Your task to perform on an android device: Show me recent news Image 0: 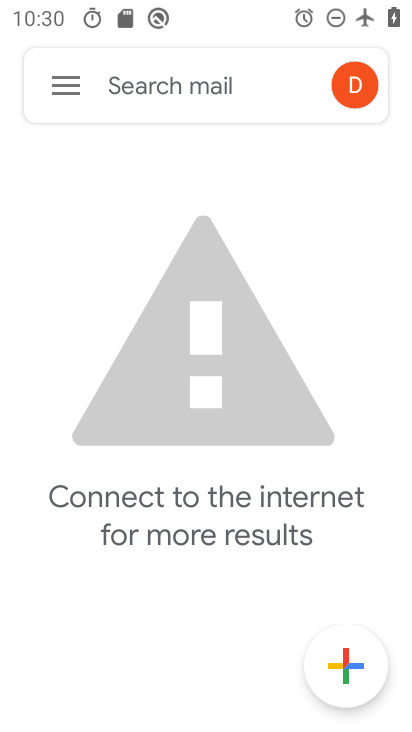
Step 0: press home button
Your task to perform on an android device: Show me recent news Image 1: 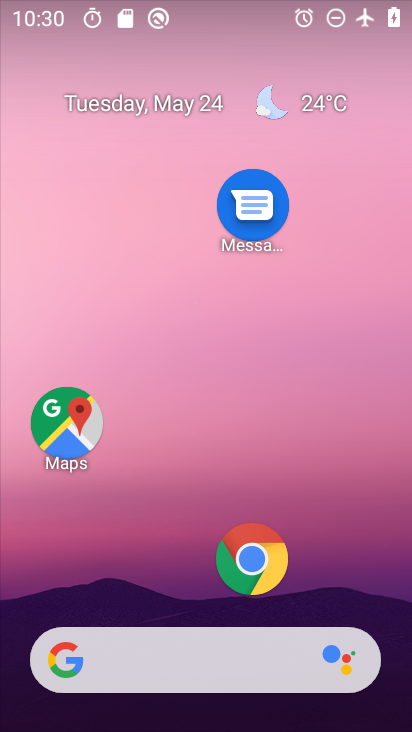
Step 1: drag from (189, 596) to (151, 155)
Your task to perform on an android device: Show me recent news Image 2: 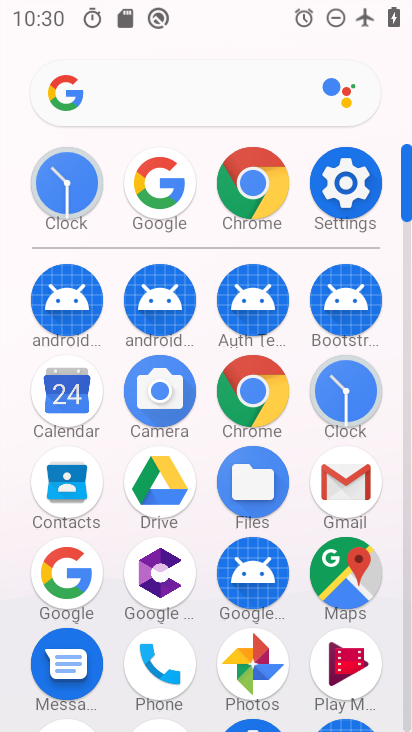
Step 2: click (70, 571)
Your task to perform on an android device: Show me recent news Image 3: 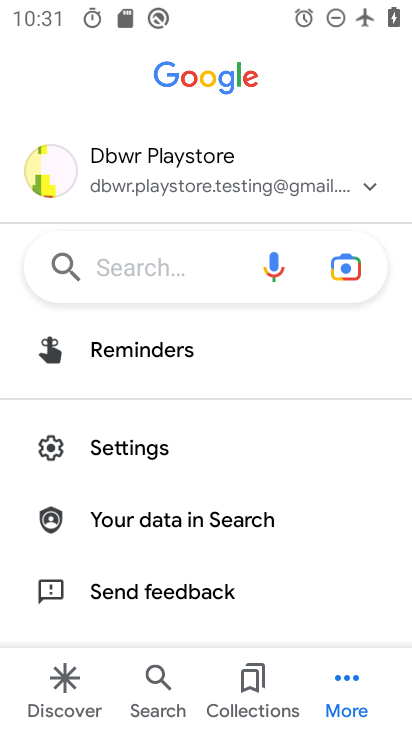
Step 3: click (77, 686)
Your task to perform on an android device: Show me recent news Image 4: 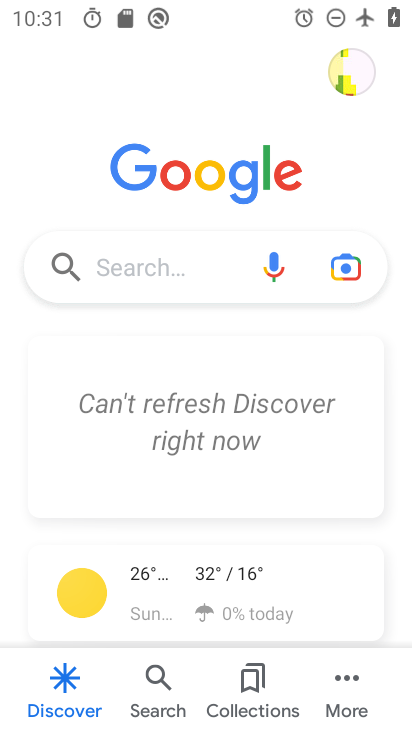
Step 4: click (152, 259)
Your task to perform on an android device: Show me recent news Image 5: 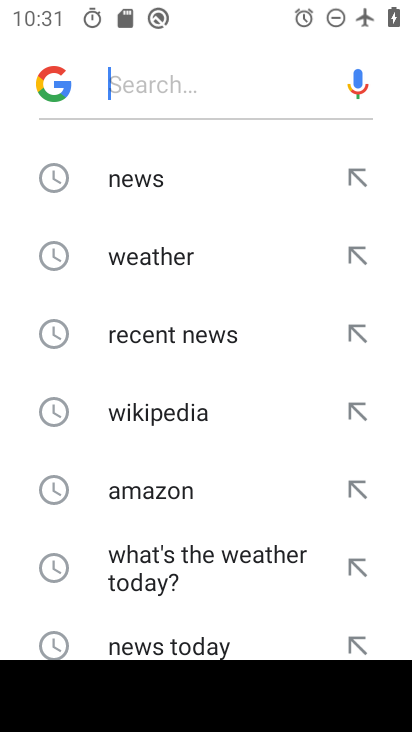
Step 5: click (125, 189)
Your task to perform on an android device: Show me recent news Image 6: 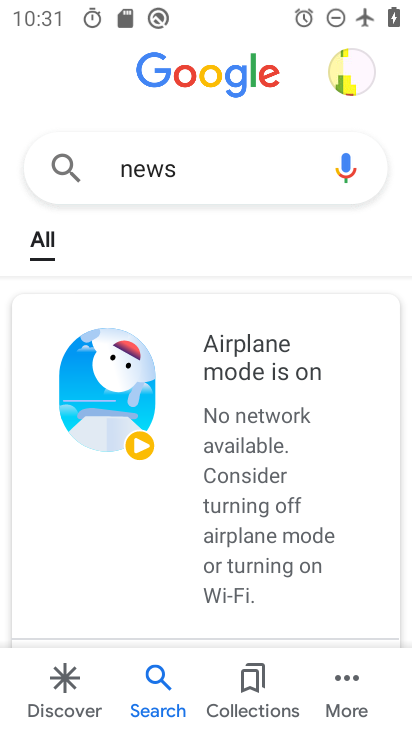
Step 6: task complete